Your task to perform on an android device: Open the calendar app, open the side menu, and click the "Day" option Image 0: 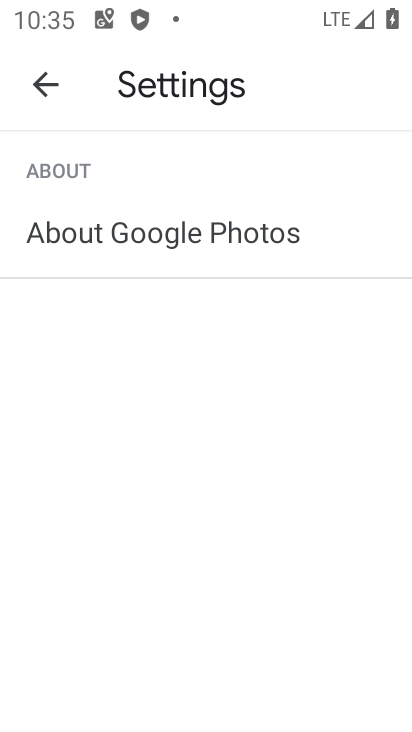
Step 0: press home button
Your task to perform on an android device: Open the calendar app, open the side menu, and click the "Day" option Image 1: 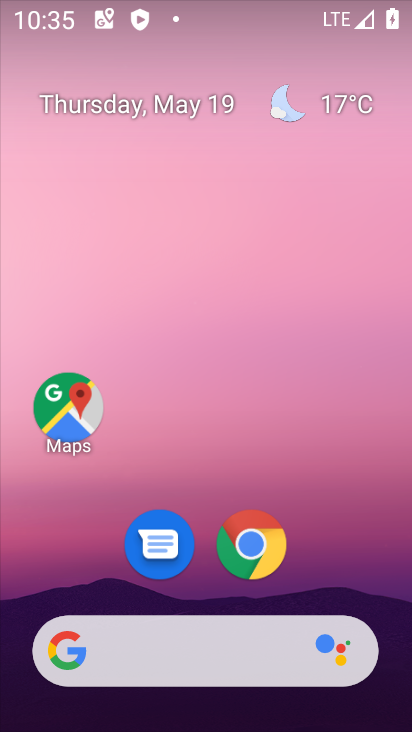
Step 1: drag from (199, 669) to (107, 95)
Your task to perform on an android device: Open the calendar app, open the side menu, and click the "Day" option Image 2: 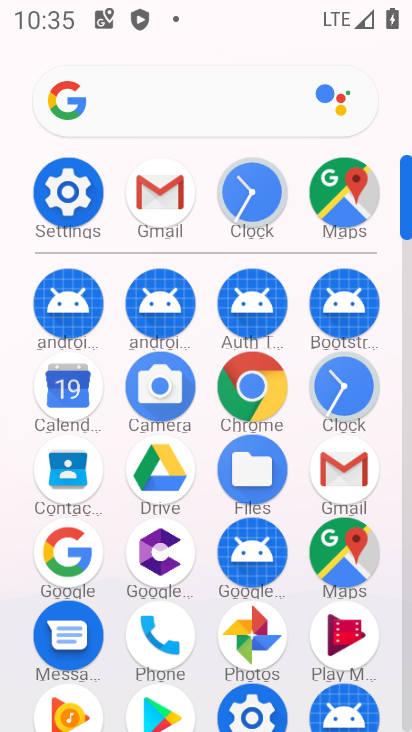
Step 2: click (91, 399)
Your task to perform on an android device: Open the calendar app, open the side menu, and click the "Day" option Image 3: 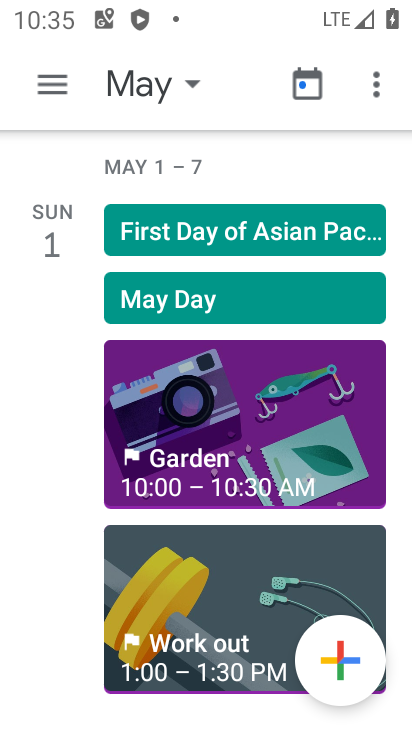
Step 3: click (52, 84)
Your task to perform on an android device: Open the calendar app, open the side menu, and click the "Day" option Image 4: 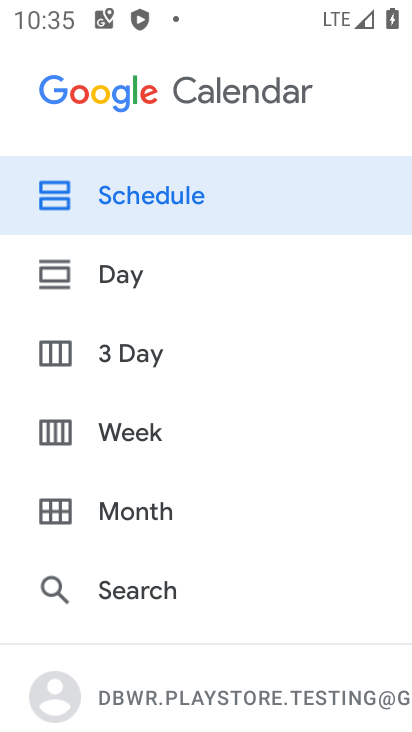
Step 4: click (114, 284)
Your task to perform on an android device: Open the calendar app, open the side menu, and click the "Day" option Image 5: 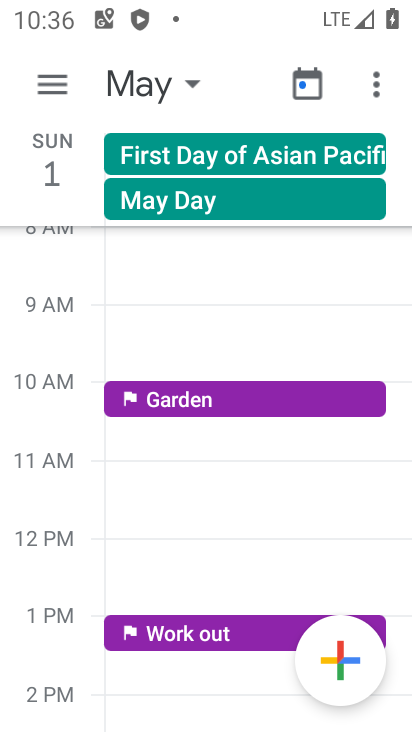
Step 5: task complete